Your task to perform on an android device: Go to Yahoo.com Image 0: 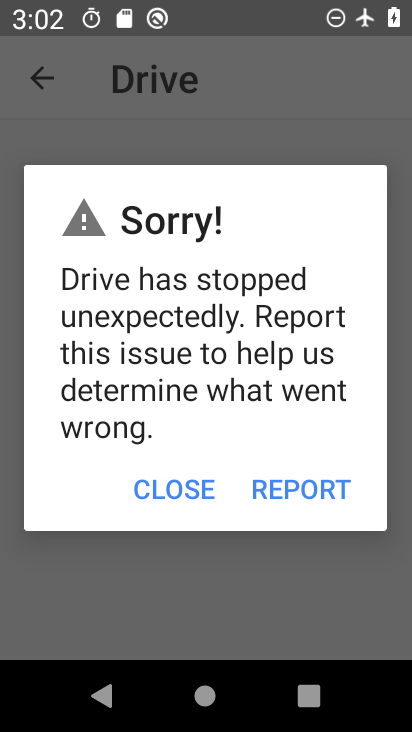
Step 0: press home button
Your task to perform on an android device: Go to Yahoo.com Image 1: 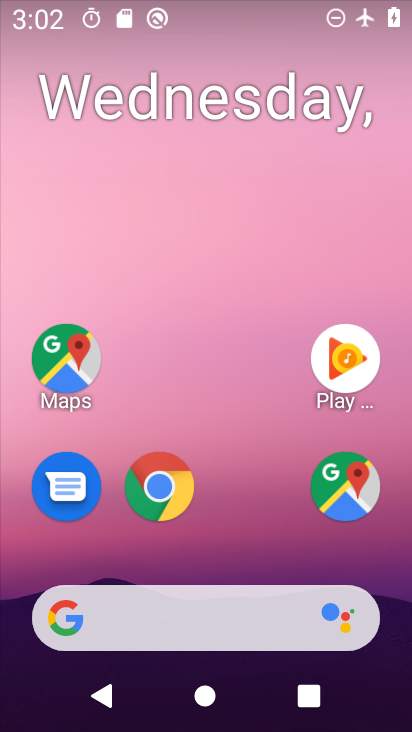
Step 1: drag from (283, 539) to (274, 170)
Your task to perform on an android device: Go to Yahoo.com Image 2: 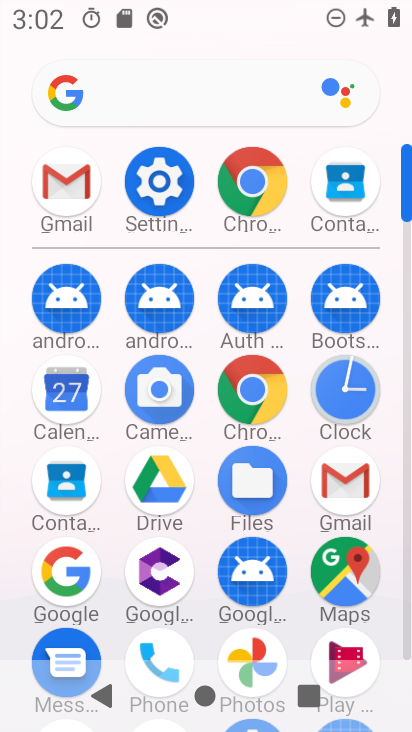
Step 2: click (255, 388)
Your task to perform on an android device: Go to Yahoo.com Image 3: 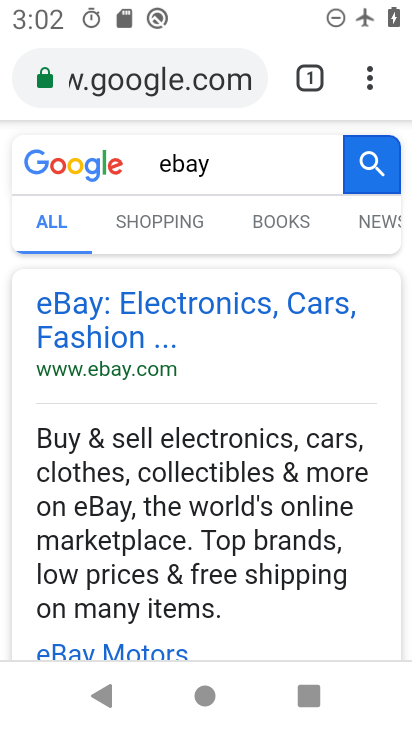
Step 3: click (211, 82)
Your task to perform on an android device: Go to Yahoo.com Image 4: 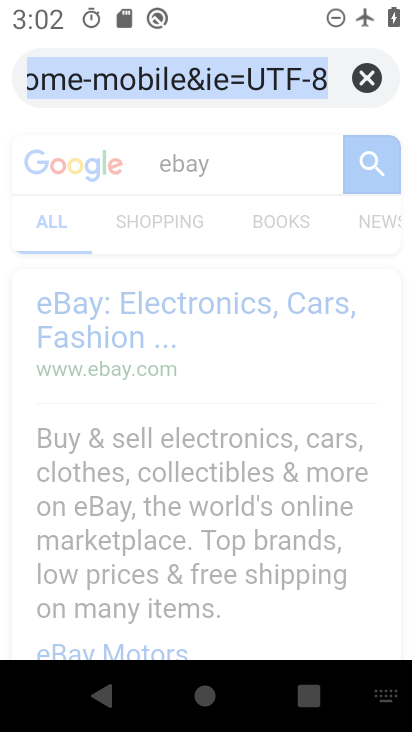
Step 4: type "yahoo.com"
Your task to perform on an android device: Go to Yahoo.com Image 5: 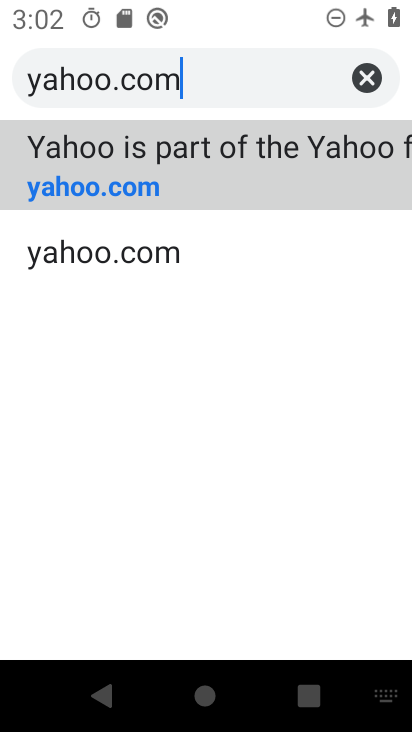
Step 5: click (370, 184)
Your task to perform on an android device: Go to Yahoo.com Image 6: 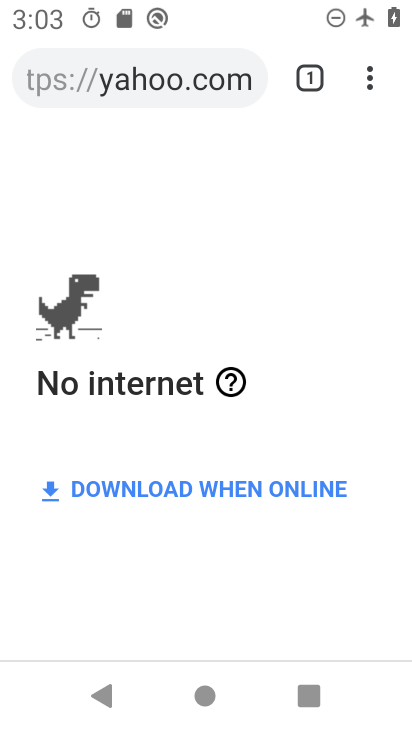
Step 6: task complete